Your task to perform on an android device: visit the assistant section in the google photos Image 0: 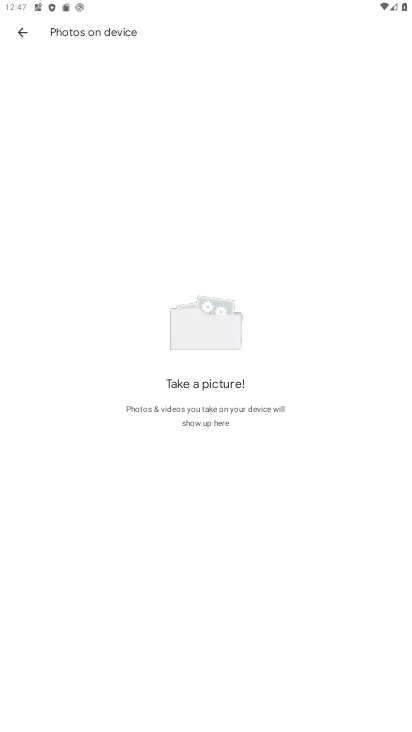
Step 0: press home button
Your task to perform on an android device: visit the assistant section in the google photos Image 1: 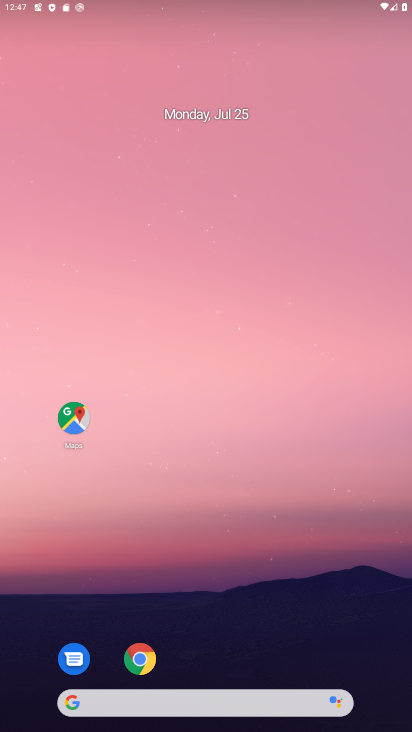
Step 1: drag from (260, 627) to (374, 6)
Your task to perform on an android device: visit the assistant section in the google photos Image 2: 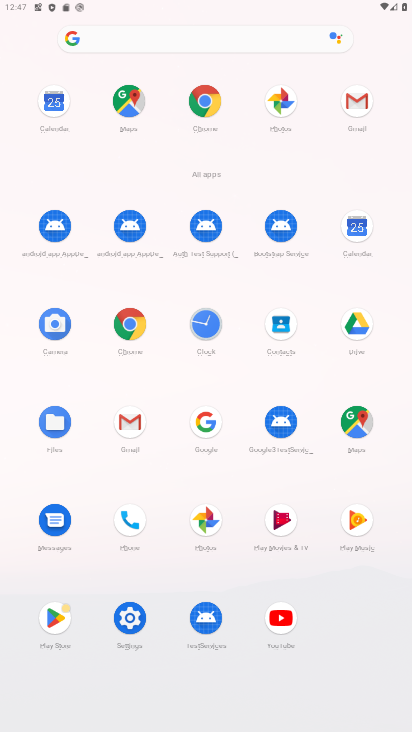
Step 2: click (202, 521)
Your task to perform on an android device: visit the assistant section in the google photos Image 3: 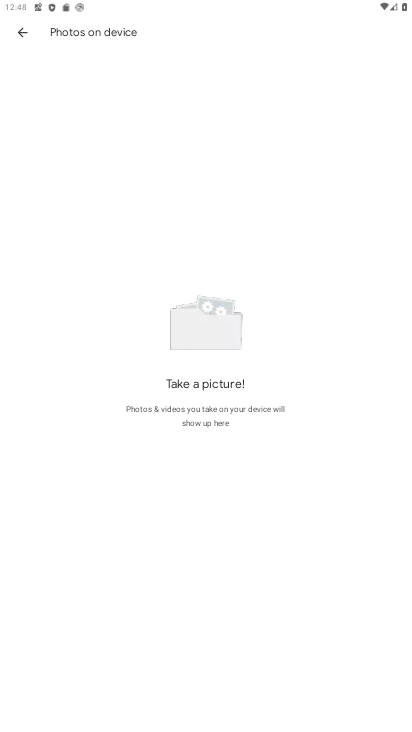
Step 3: click (17, 27)
Your task to perform on an android device: visit the assistant section in the google photos Image 4: 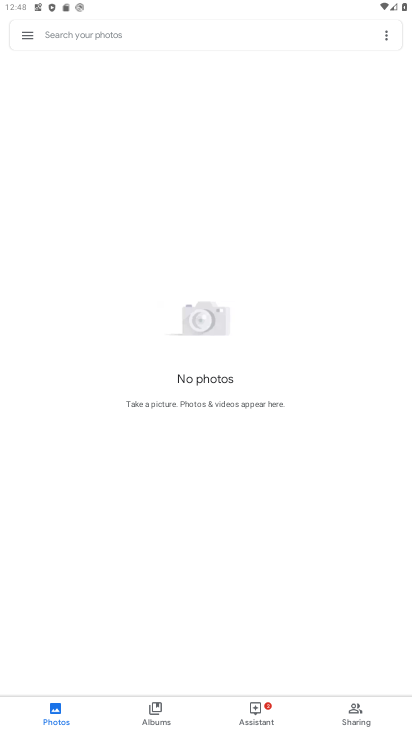
Step 4: click (253, 718)
Your task to perform on an android device: visit the assistant section in the google photos Image 5: 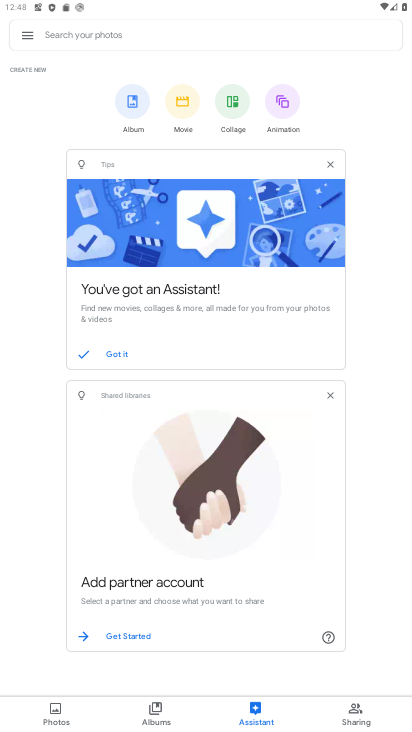
Step 5: task complete